Your task to perform on an android device: Go to sound settings Image 0: 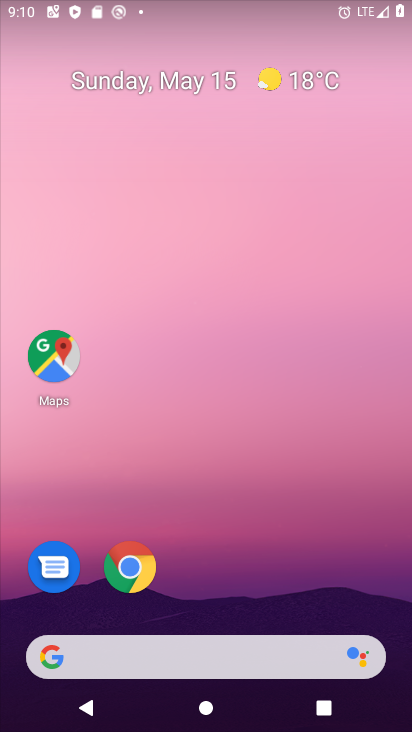
Step 0: drag from (279, 567) to (326, 63)
Your task to perform on an android device: Go to sound settings Image 1: 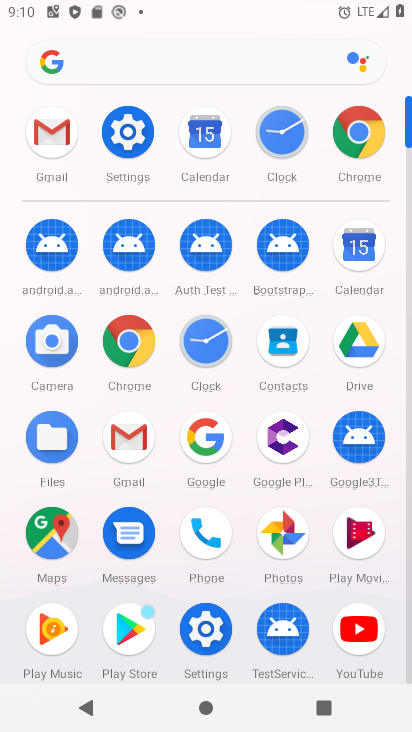
Step 1: click (117, 158)
Your task to perform on an android device: Go to sound settings Image 2: 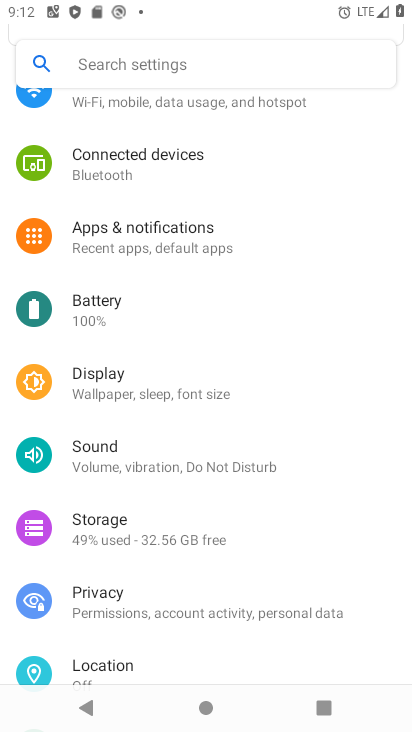
Step 2: click (190, 455)
Your task to perform on an android device: Go to sound settings Image 3: 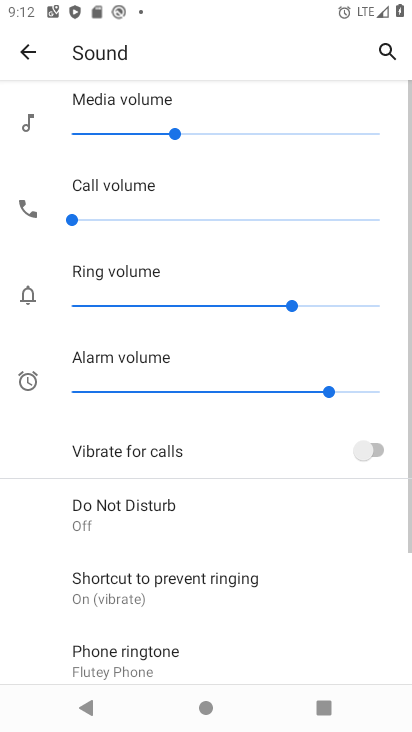
Step 3: task complete